Your task to perform on an android device: Show me productivity apps on the Play Store Image 0: 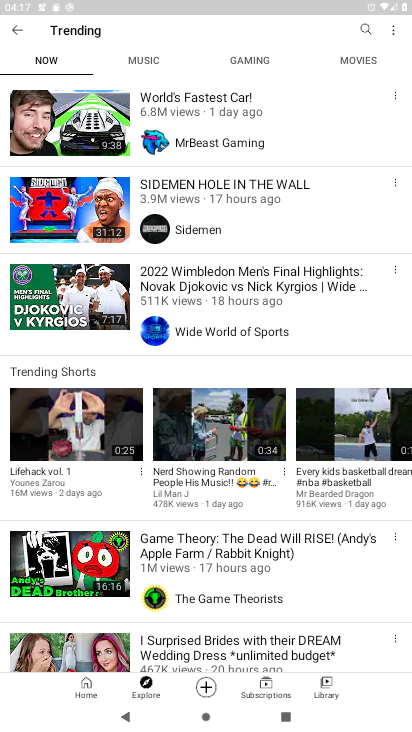
Step 0: press home button
Your task to perform on an android device: Show me productivity apps on the Play Store Image 1: 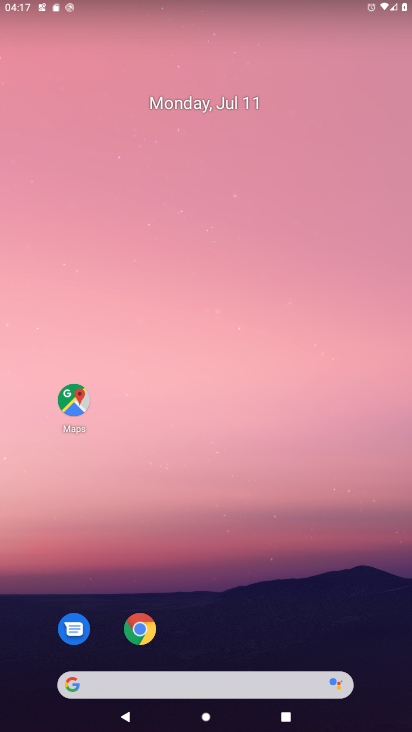
Step 1: drag from (207, 632) to (275, 75)
Your task to perform on an android device: Show me productivity apps on the Play Store Image 2: 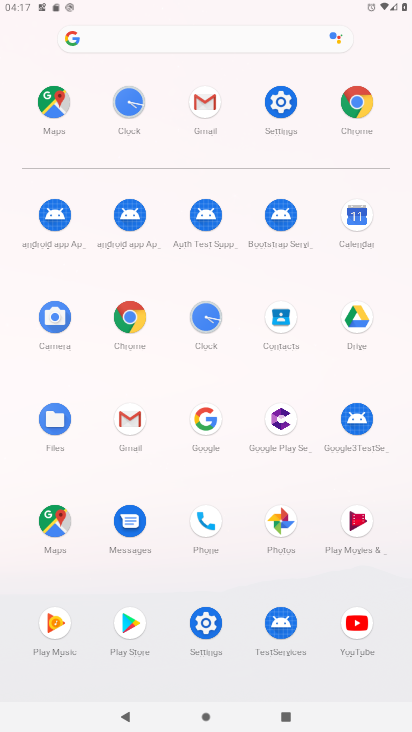
Step 2: click (136, 623)
Your task to perform on an android device: Show me productivity apps on the Play Store Image 3: 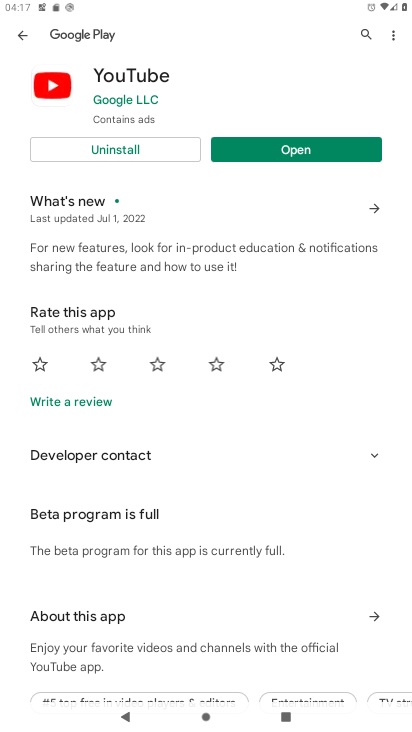
Step 3: click (20, 27)
Your task to perform on an android device: Show me productivity apps on the Play Store Image 4: 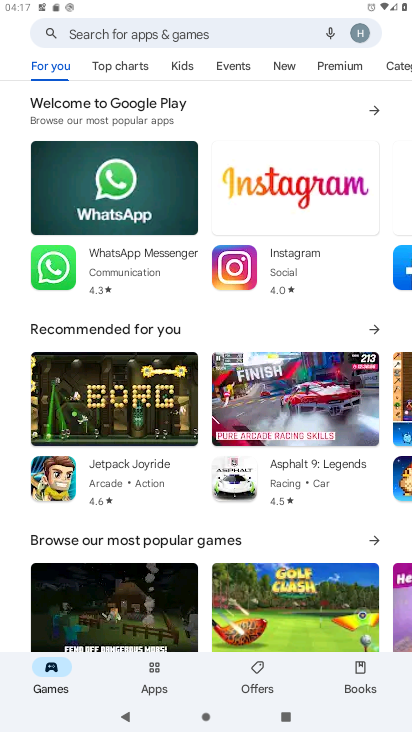
Step 4: click (147, 671)
Your task to perform on an android device: Show me productivity apps on the Play Store Image 5: 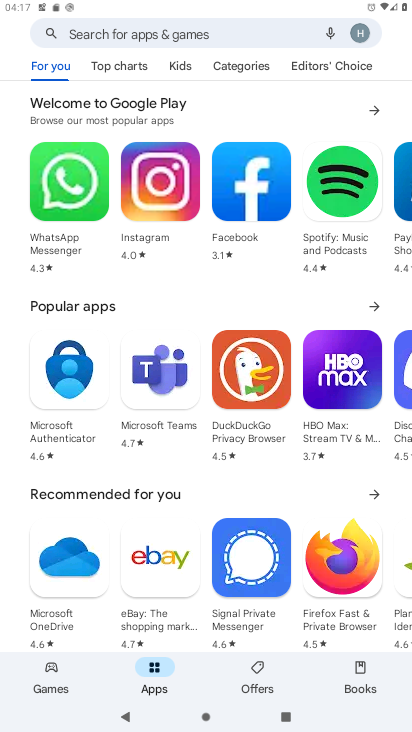
Step 5: drag from (203, 598) to (266, 73)
Your task to perform on an android device: Show me productivity apps on the Play Store Image 6: 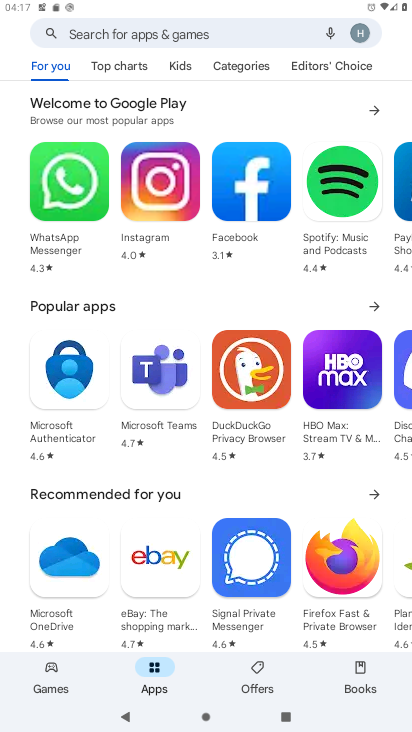
Step 6: drag from (131, 576) to (258, 22)
Your task to perform on an android device: Show me productivity apps on the Play Store Image 7: 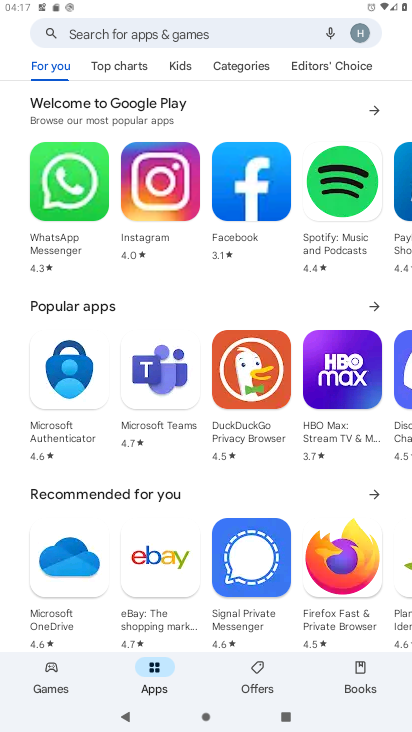
Step 7: drag from (166, 586) to (246, 93)
Your task to perform on an android device: Show me productivity apps on the Play Store Image 8: 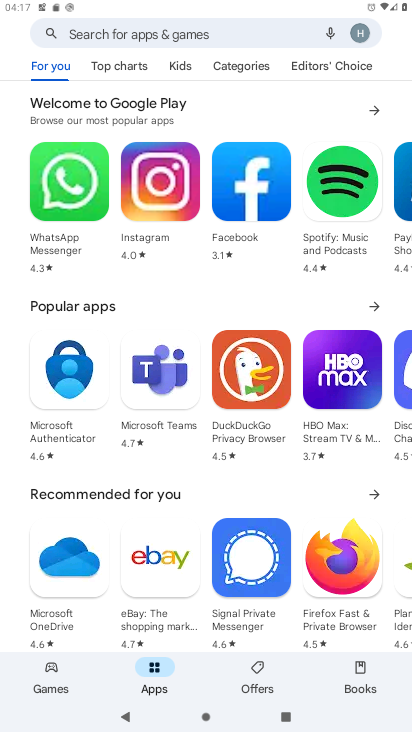
Step 8: drag from (158, 589) to (282, 80)
Your task to perform on an android device: Show me productivity apps on the Play Store Image 9: 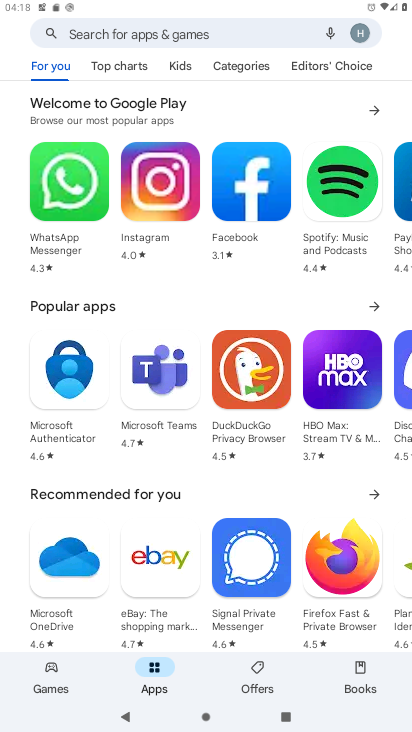
Step 9: drag from (146, 472) to (231, 22)
Your task to perform on an android device: Show me productivity apps on the Play Store Image 10: 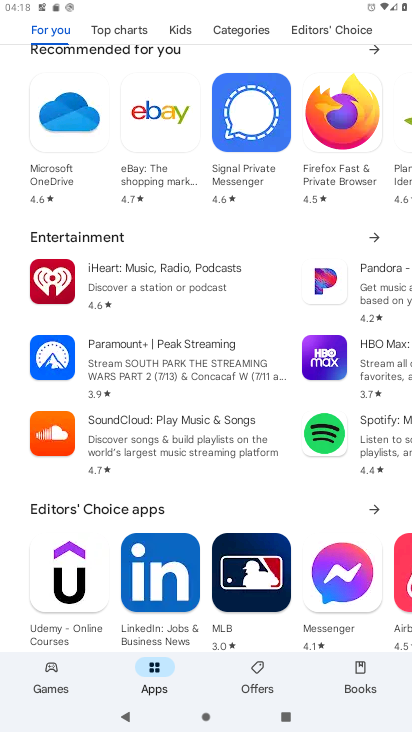
Step 10: drag from (171, 614) to (294, 12)
Your task to perform on an android device: Show me productivity apps on the Play Store Image 11: 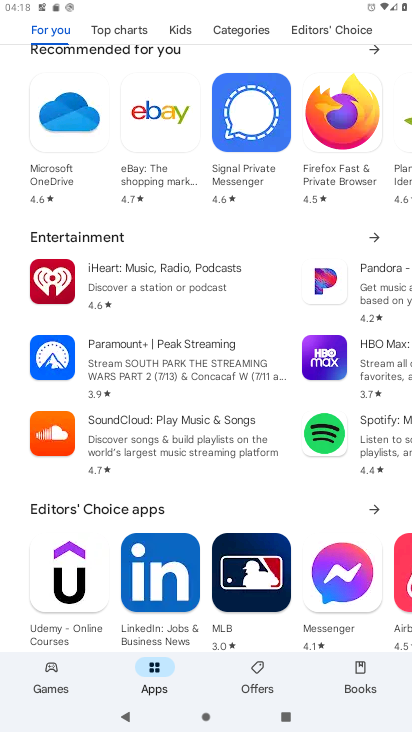
Step 11: drag from (106, 618) to (202, 74)
Your task to perform on an android device: Show me productivity apps on the Play Store Image 12: 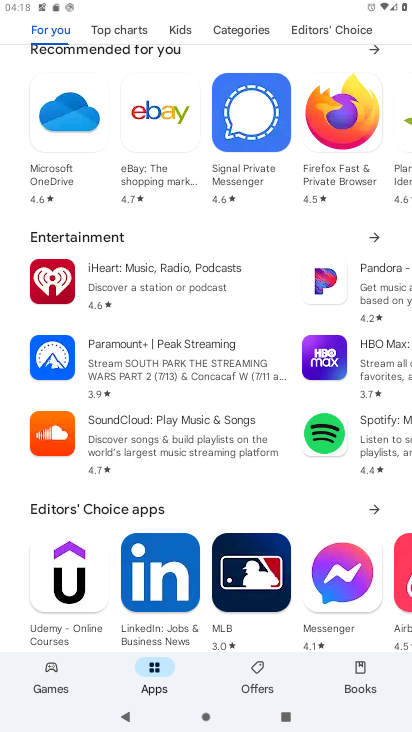
Step 12: drag from (163, 580) to (251, 49)
Your task to perform on an android device: Show me productivity apps on the Play Store Image 13: 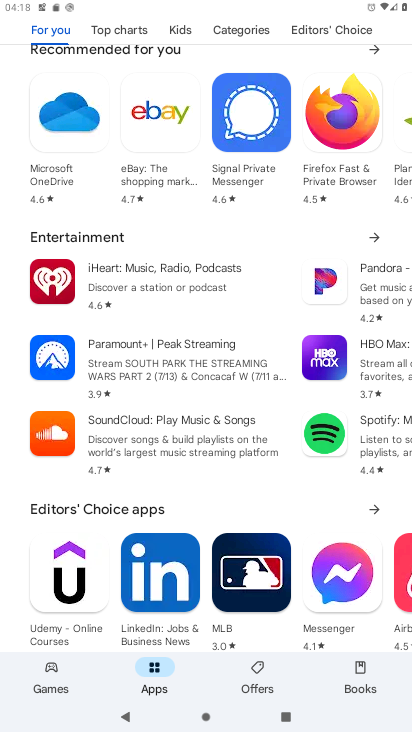
Step 13: drag from (155, 541) to (246, 30)
Your task to perform on an android device: Show me productivity apps on the Play Store Image 14: 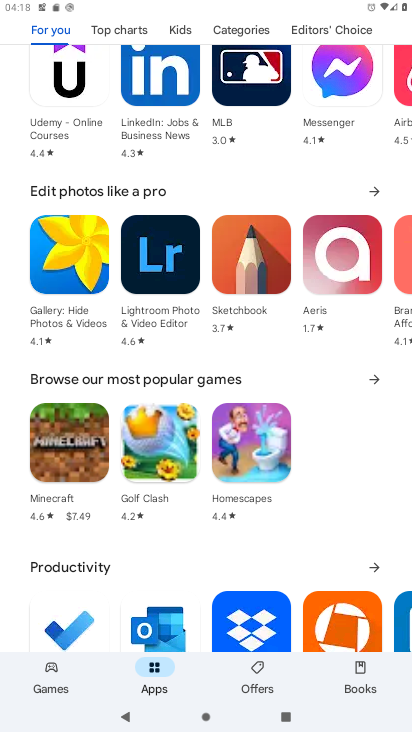
Step 14: drag from (200, 582) to (269, 151)
Your task to perform on an android device: Show me productivity apps on the Play Store Image 15: 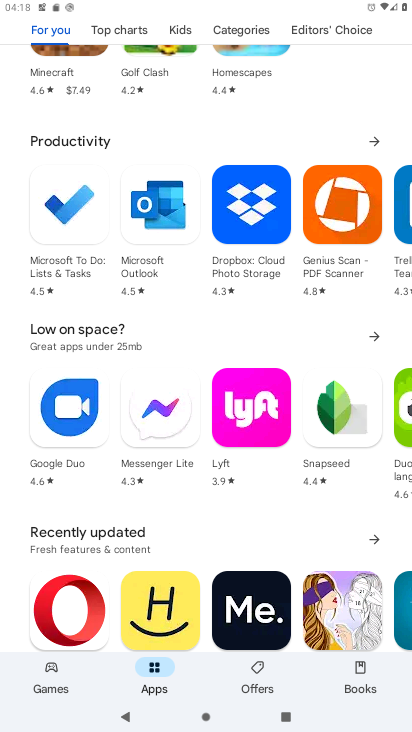
Step 15: click (374, 140)
Your task to perform on an android device: Show me productivity apps on the Play Store Image 16: 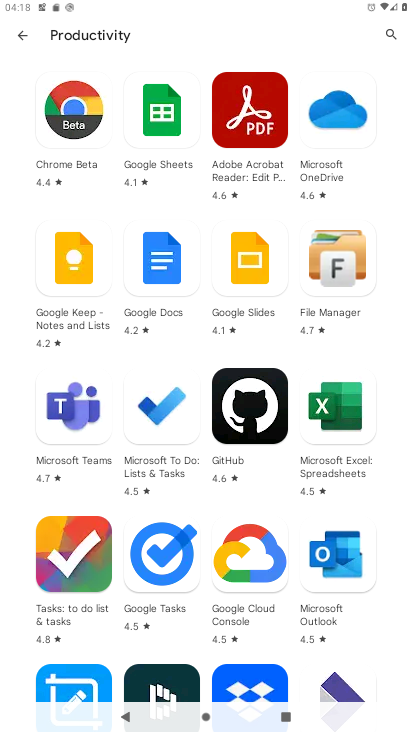
Step 16: task complete